Your task to perform on an android device: Open calendar and show me the second week of next month Image 0: 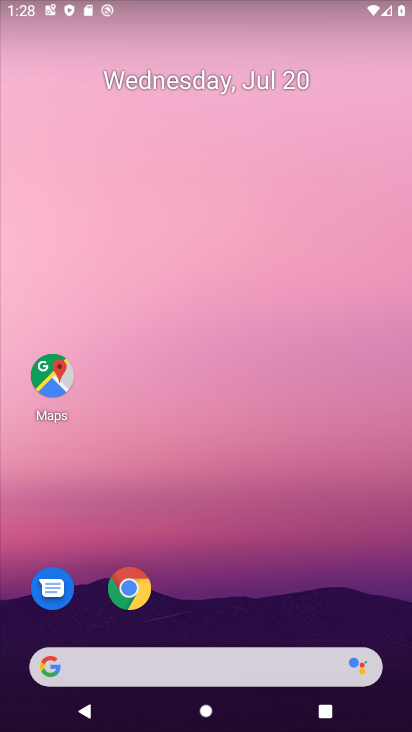
Step 0: drag from (320, 605) to (189, 27)
Your task to perform on an android device: Open calendar and show me the second week of next month Image 1: 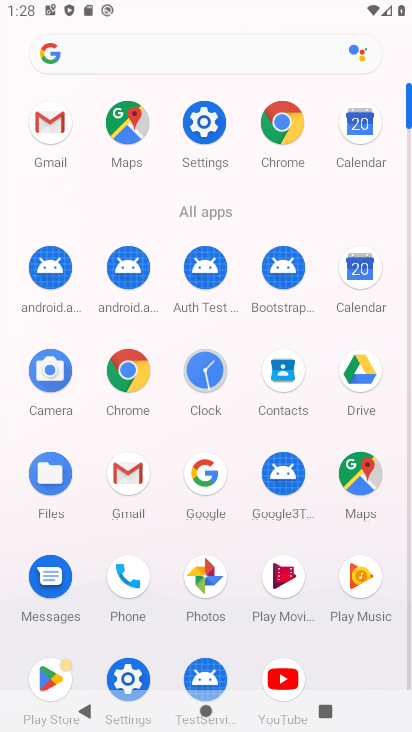
Step 1: click (358, 281)
Your task to perform on an android device: Open calendar and show me the second week of next month Image 2: 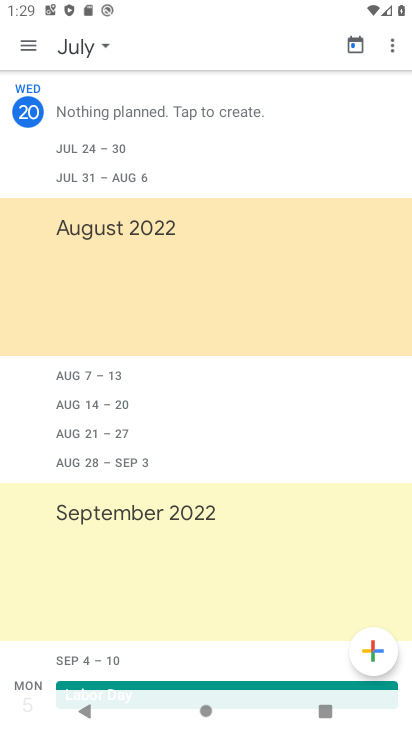
Step 2: click (66, 51)
Your task to perform on an android device: Open calendar and show me the second week of next month Image 3: 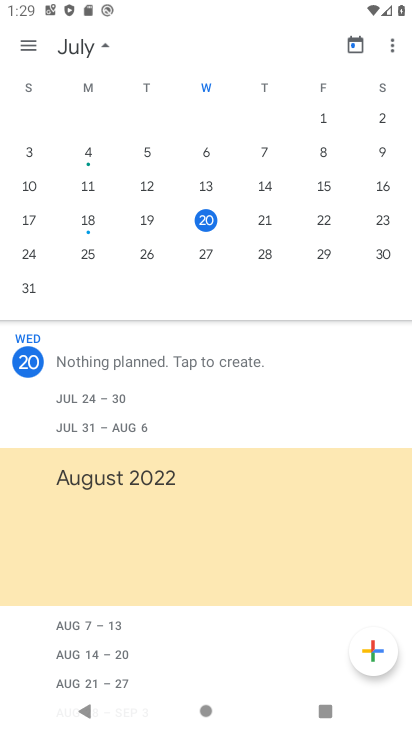
Step 3: drag from (378, 184) to (31, 165)
Your task to perform on an android device: Open calendar and show me the second week of next month Image 4: 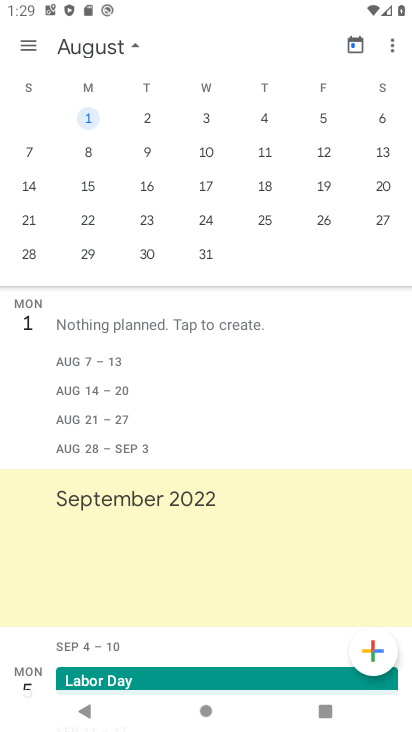
Step 4: click (26, 182)
Your task to perform on an android device: Open calendar and show me the second week of next month Image 5: 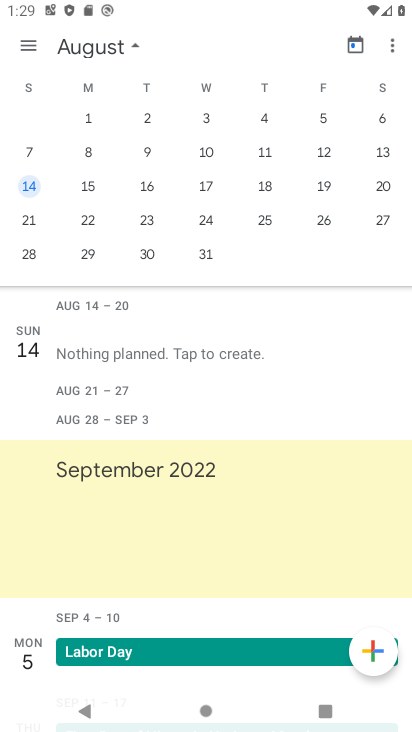
Step 5: task complete